Your task to perform on an android device: Open Google Image 0: 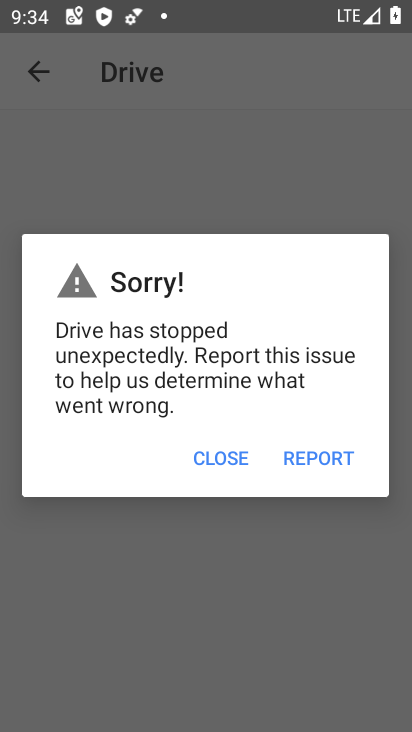
Step 0: press home button
Your task to perform on an android device: Open Google Image 1: 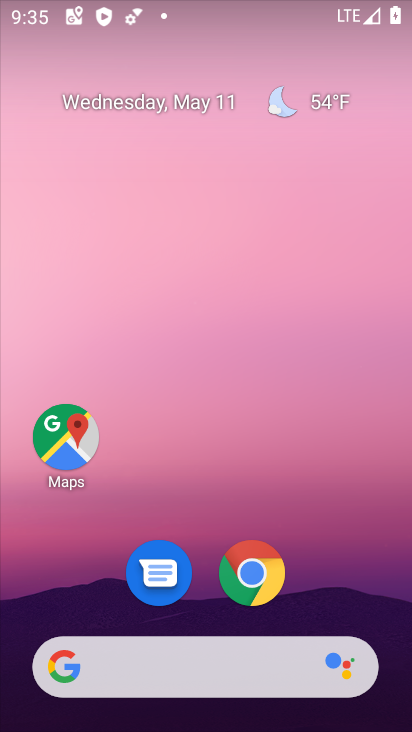
Step 1: drag from (184, 637) to (274, 13)
Your task to perform on an android device: Open Google Image 2: 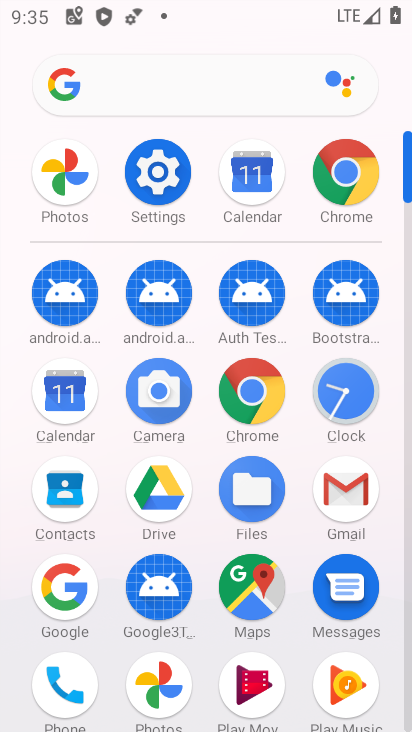
Step 2: click (248, 382)
Your task to perform on an android device: Open Google Image 3: 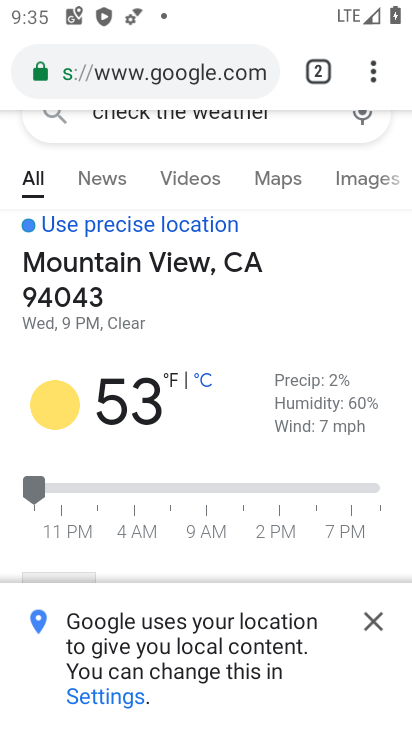
Step 3: task complete